Your task to perform on an android device: open chrome privacy settings Image 0: 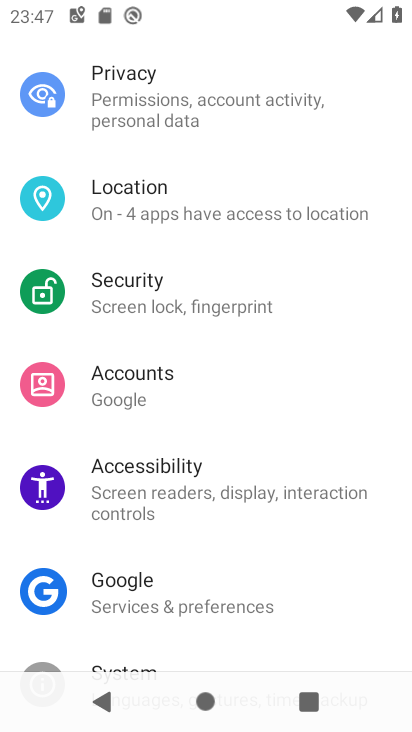
Step 0: press home button
Your task to perform on an android device: open chrome privacy settings Image 1: 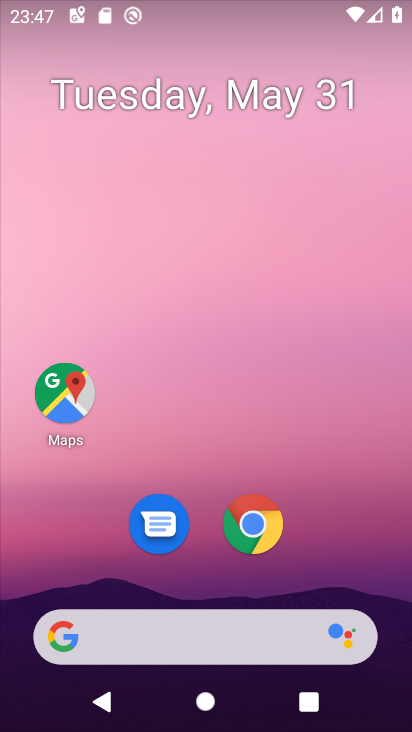
Step 1: click (266, 535)
Your task to perform on an android device: open chrome privacy settings Image 2: 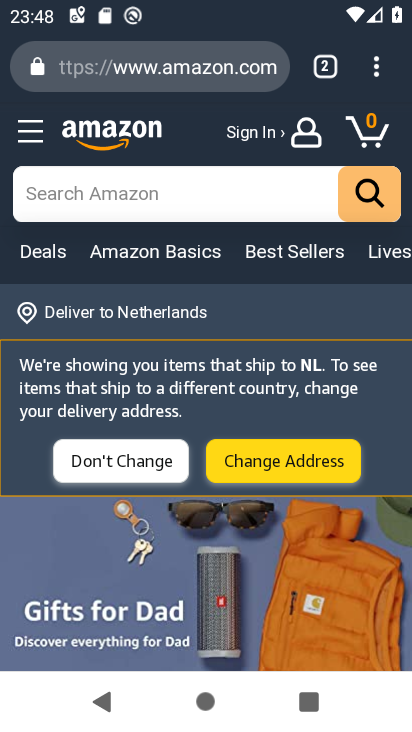
Step 2: click (374, 74)
Your task to perform on an android device: open chrome privacy settings Image 3: 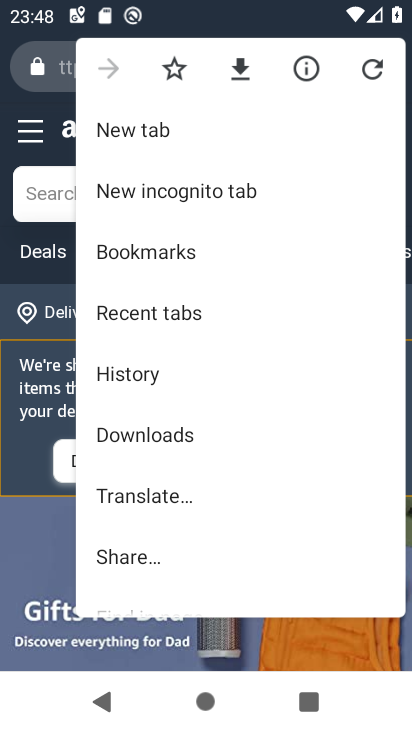
Step 3: drag from (230, 424) to (213, 136)
Your task to perform on an android device: open chrome privacy settings Image 4: 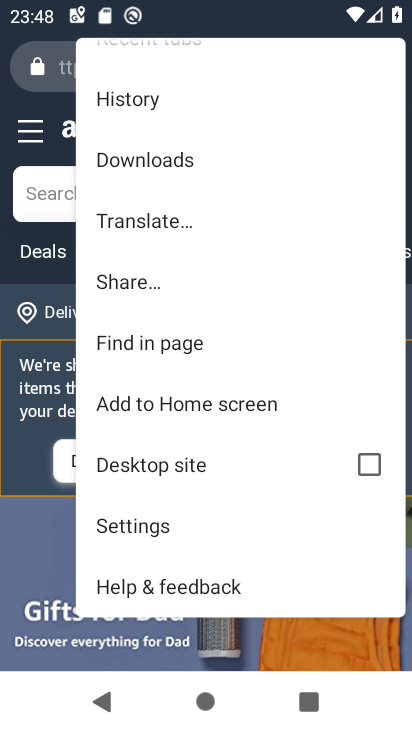
Step 4: click (178, 530)
Your task to perform on an android device: open chrome privacy settings Image 5: 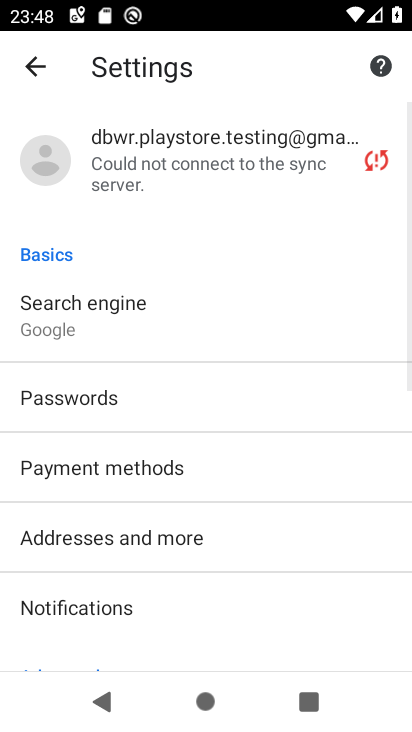
Step 5: drag from (239, 460) to (240, 243)
Your task to perform on an android device: open chrome privacy settings Image 6: 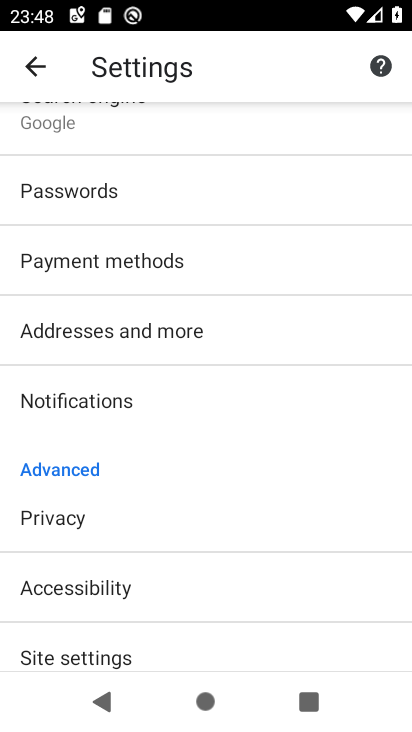
Step 6: click (83, 528)
Your task to perform on an android device: open chrome privacy settings Image 7: 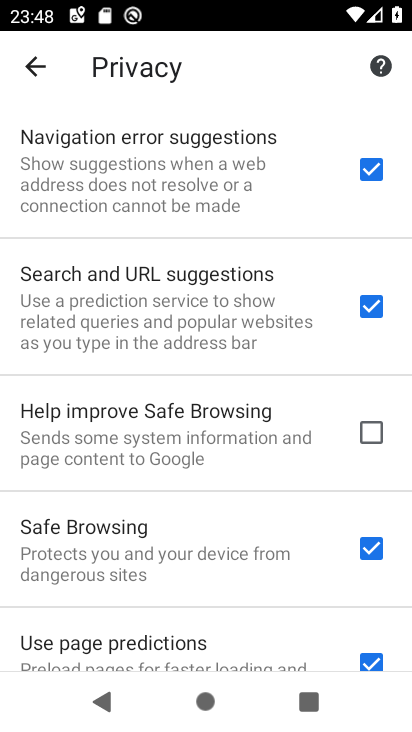
Step 7: task complete